Your task to perform on an android device: refresh tabs in the chrome app Image 0: 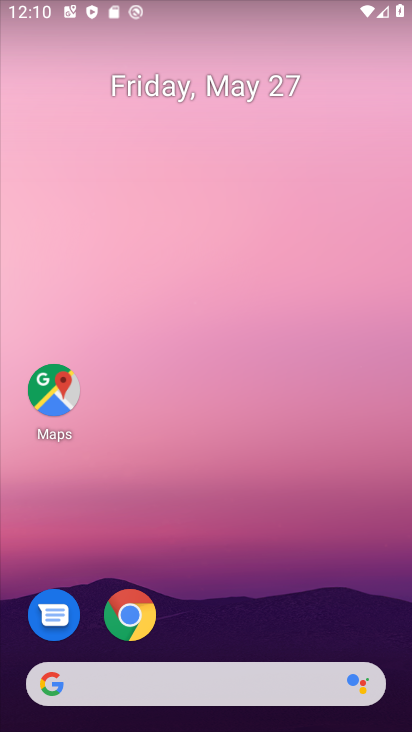
Step 0: drag from (267, 689) to (273, 10)
Your task to perform on an android device: refresh tabs in the chrome app Image 1: 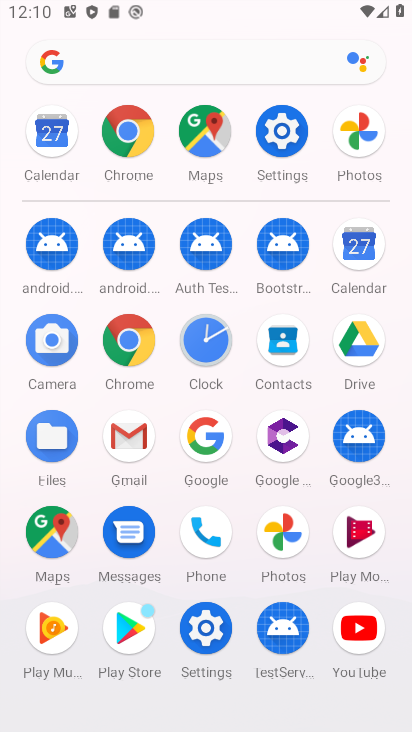
Step 1: click (141, 341)
Your task to perform on an android device: refresh tabs in the chrome app Image 2: 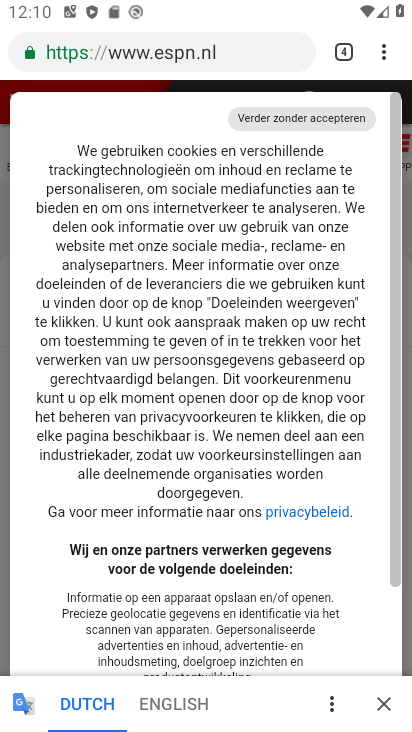
Step 2: task complete